Your task to perform on an android device: create a new album in the google photos Image 0: 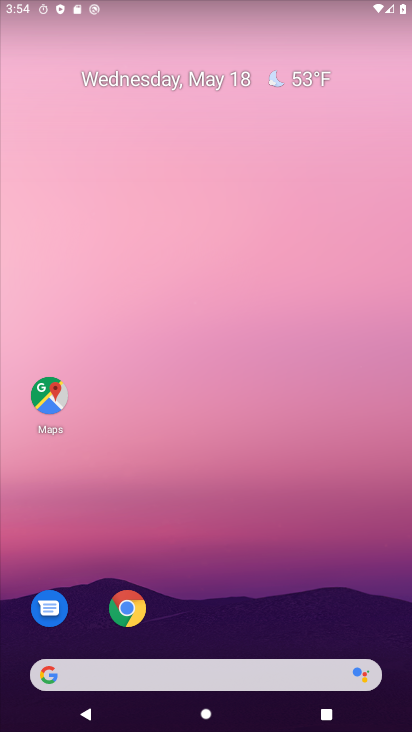
Step 0: drag from (337, 669) to (318, 0)
Your task to perform on an android device: create a new album in the google photos Image 1: 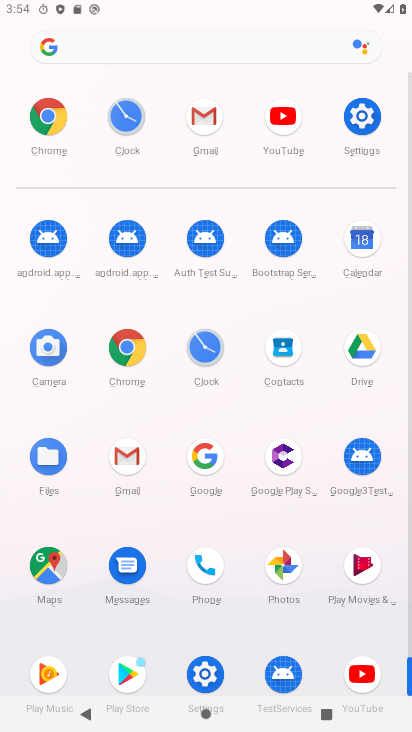
Step 1: click (289, 578)
Your task to perform on an android device: create a new album in the google photos Image 2: 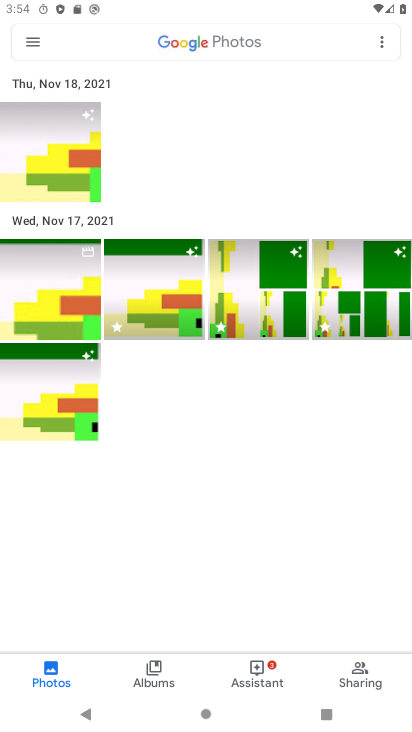
Step 2: click (151, 679)
Your task to perform on an android device: create a new album in the google photos Image 3: 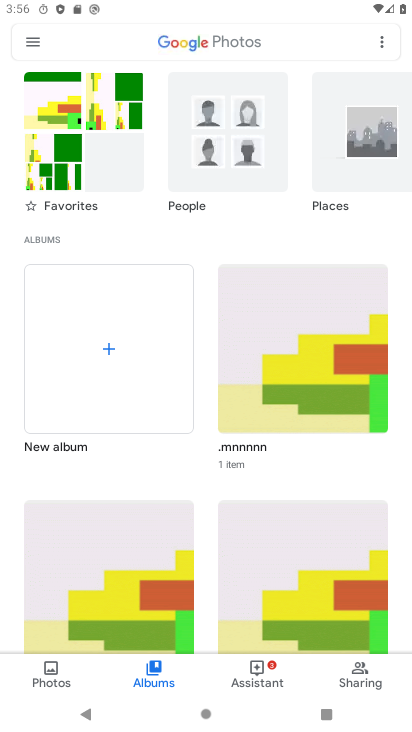
Step 3: click (108, 350)
Your task to perform on an android device: create a new album in the google photos Image 4: 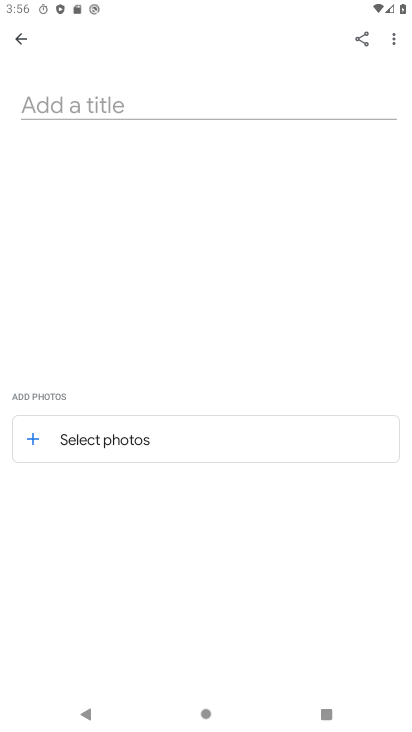
Step 4: click (212, 112)
Your task to perform on an android device: create a new album in the google photos Image 5: 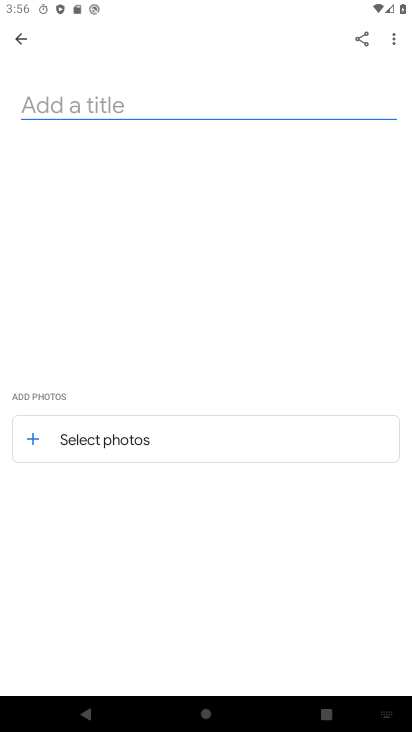
Step 5: type "sadassaa"
Your task to perform on an android device: create a new album in the google photos Image 6: 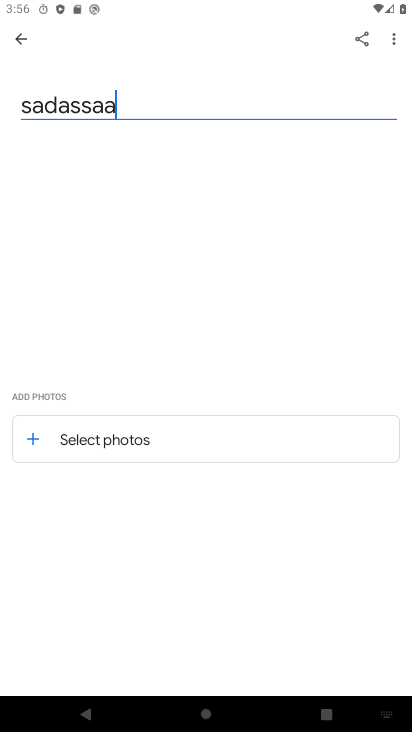
Step 6: click (27, 434)
Your task to perform on an android device: create a new album in the google photos Image 7: 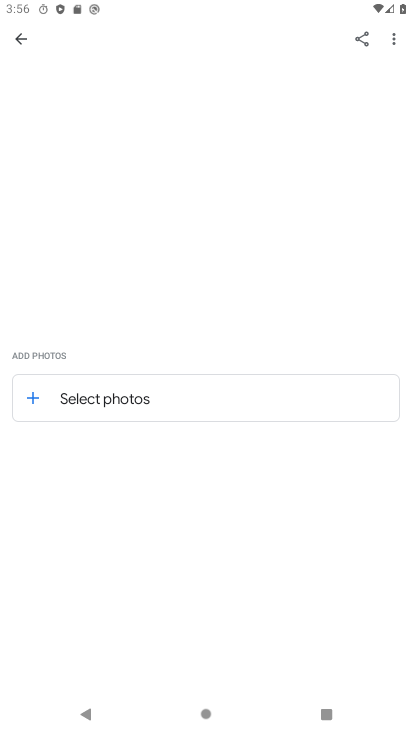
Step 7: click (36, 397)
Your task to perform on an android device: create a new album in the google photos Image 8: 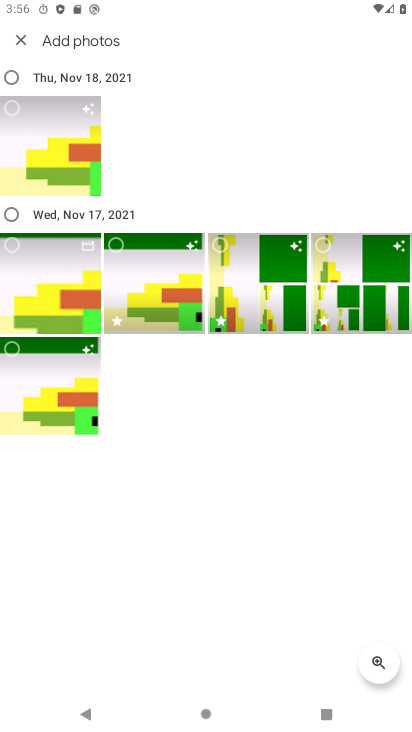
Step 8: click (30, 260)
Your task to perform on an android device: create a new album in the google photos Image 9: 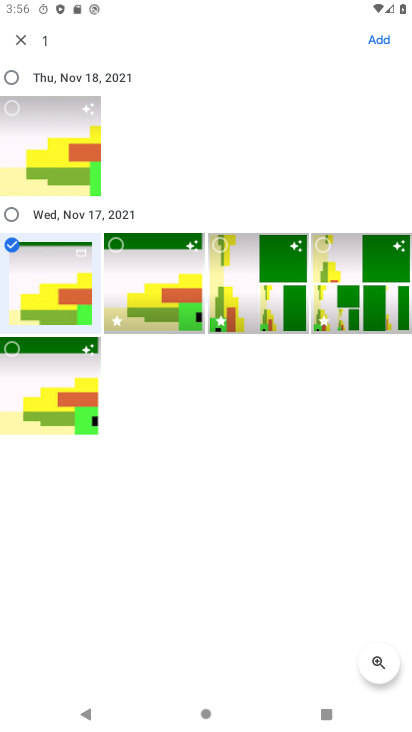
Step 9: click (377, 36)
Your task to perform on an android device: create a new album in the google photos Image 10: 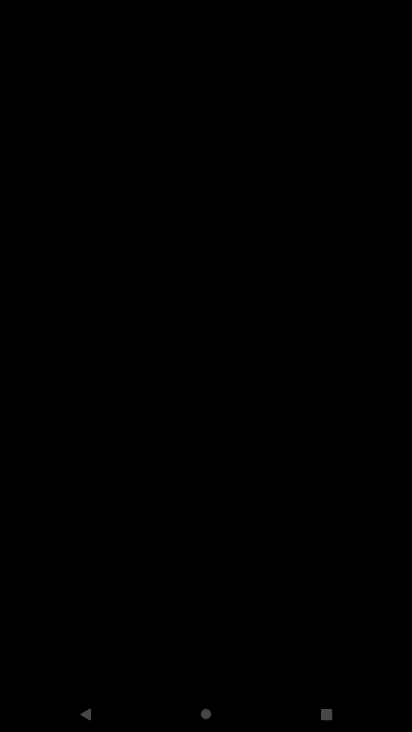
Step 10: task complete